Your task to perform on an android device: Open the web browser Image 0: 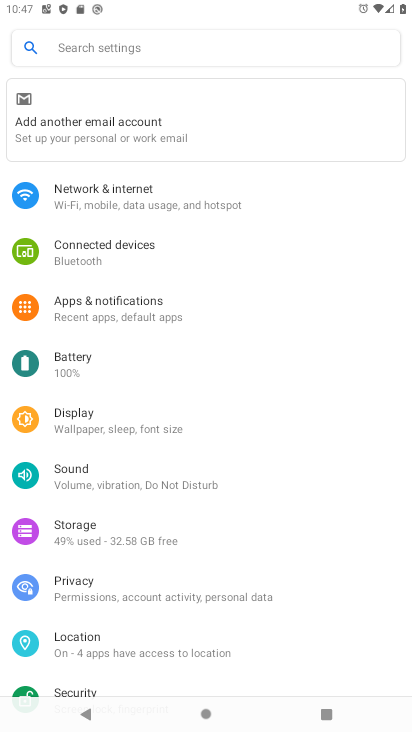
Step 0: press home button
Your task to perform on an android device: Open the web browser Image 1: 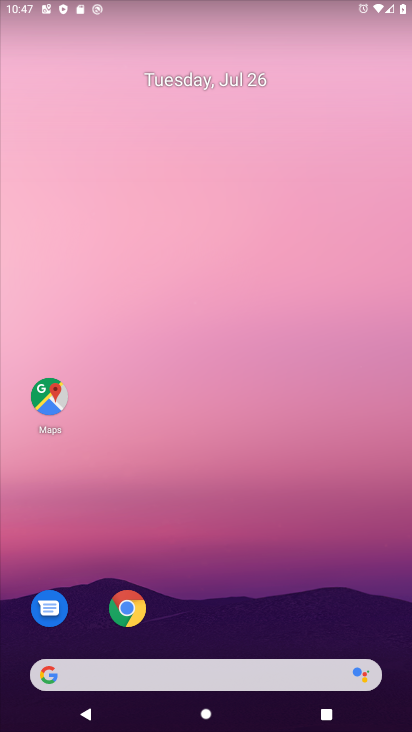
Step 1: click (126, 608)
Your task to perform on an android device: Open the web browser Image 2: 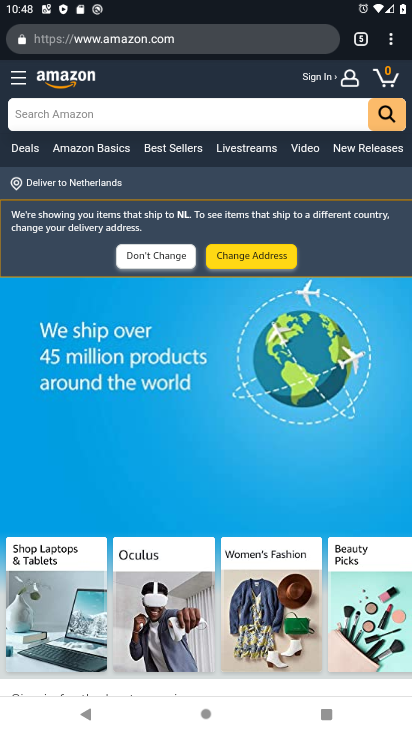
Step 2: task complete